Your task to perform on an android device: Search for Mexican restaurants on Maps Image 0: 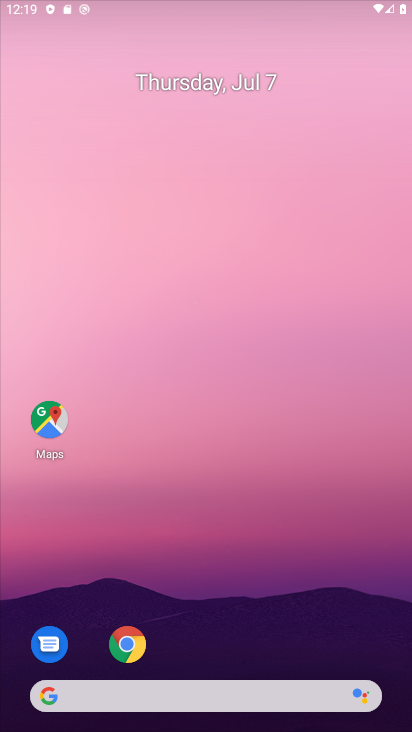
Step 0: drag from (248, 621) to (251, 204)
Your task to perform on an android device: Search for Mexican restaurants on Maps Image 1: 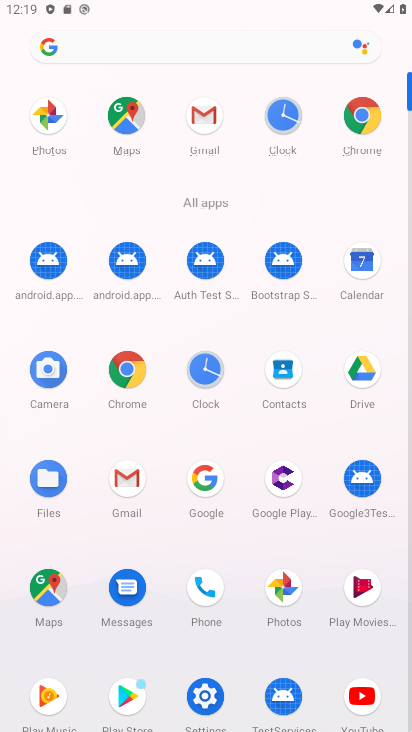
Step 1: click (127, 112)
Your task to perform on an android device: Search for Mexican restaurants on Maps Image 2: 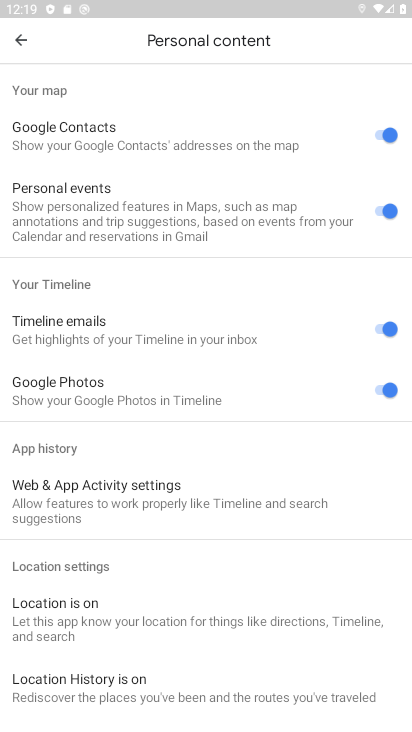
Step 2: click (10, 32)
Your task to perform on an android device: Search for Mexican restaurants on Maps Image 3: 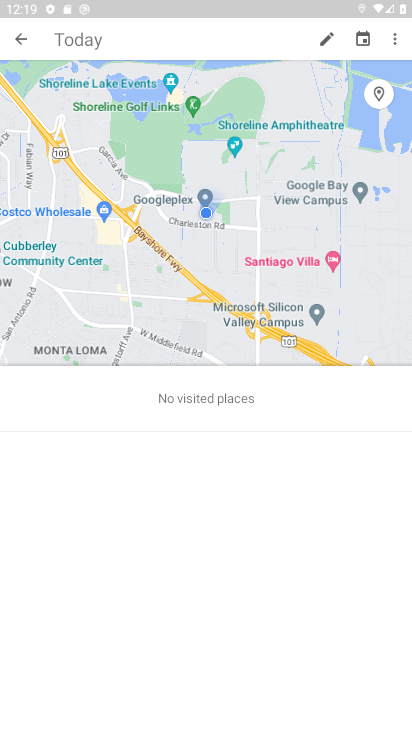
Step 3: click (16, 39)
Your task to perform on an android device: Search for Mexican restaurants on Maps Image 4: 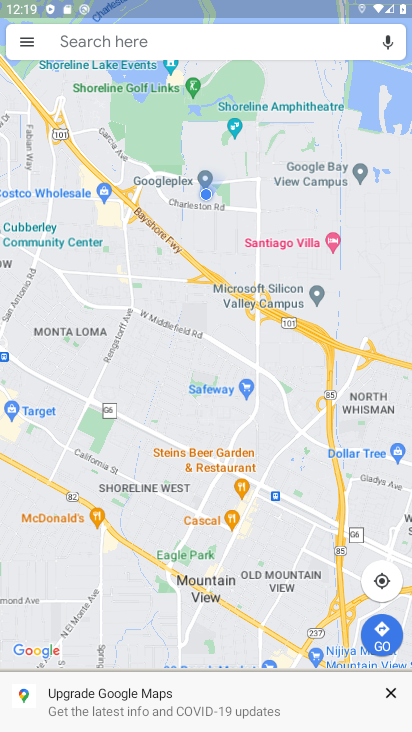
Step 4: click (164, 44)
Your task to perform on an android device: Search for Mexican restaurants on Maps Image 5: 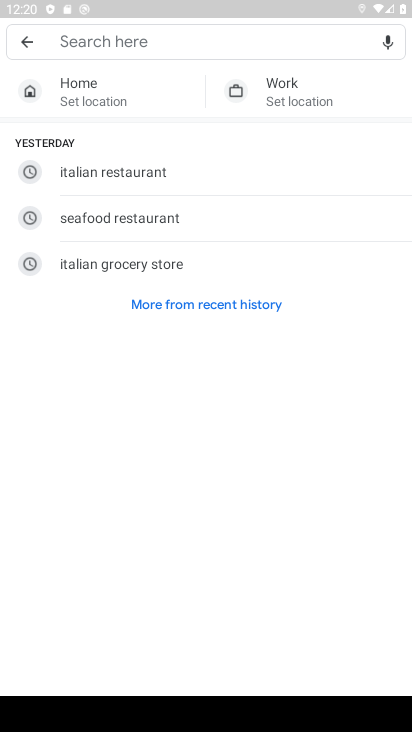
Step 5: type "Maxcican restaurants"
Your task to perform on an android device: Search for Mexican restaurants on Maps Image 6: 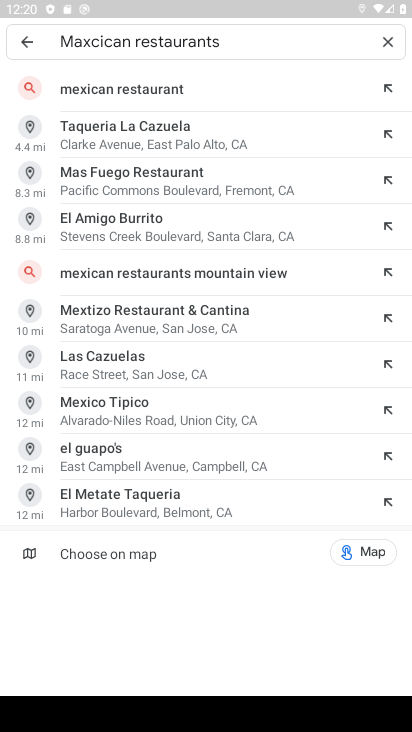
Step 6: click (175, 85)
Your task to perform on an android device: Search for Mexican restaurants on Maps Image 7: 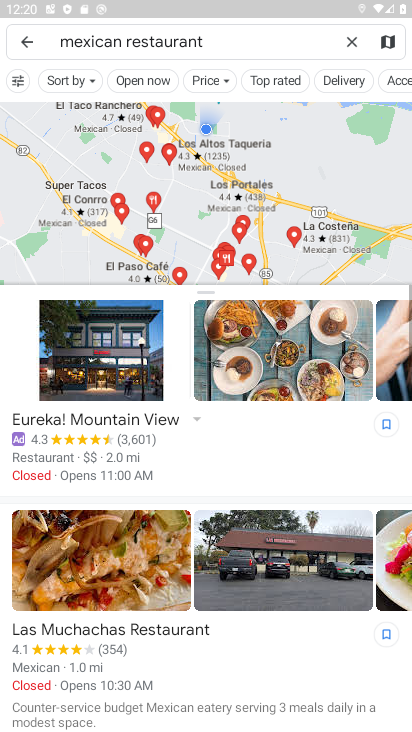
Step 7: task complete